Your task to perform on an android device: What is the news today? Image 0: 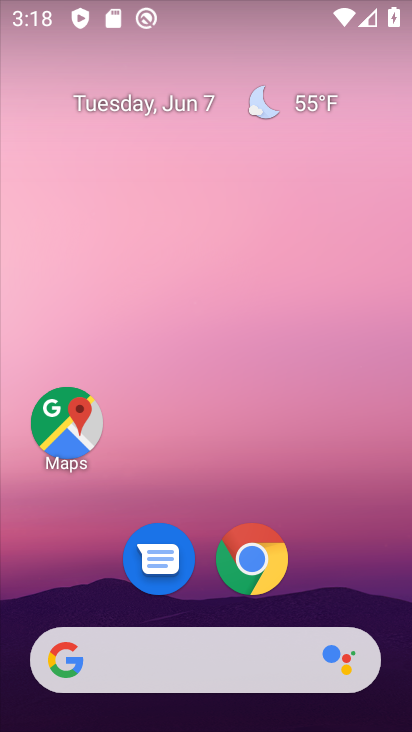
Step 0: drag from (7, 223) to (409, 224)
Your task to perform on an android device: What is the news today? Image 1: 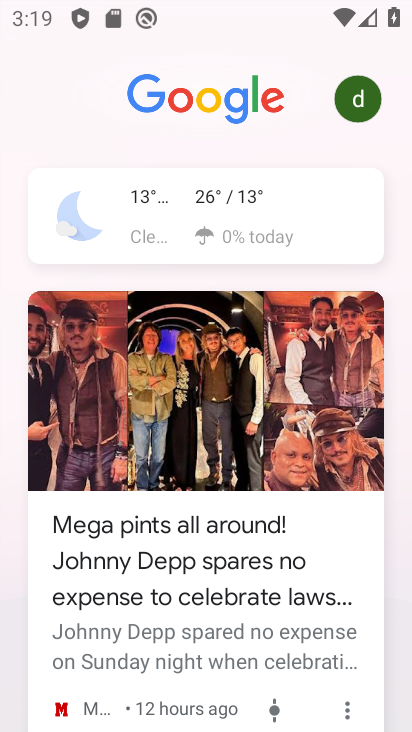
Step 1: task complete